Your task to perform on an android device: Open the stopwatch Image 0: 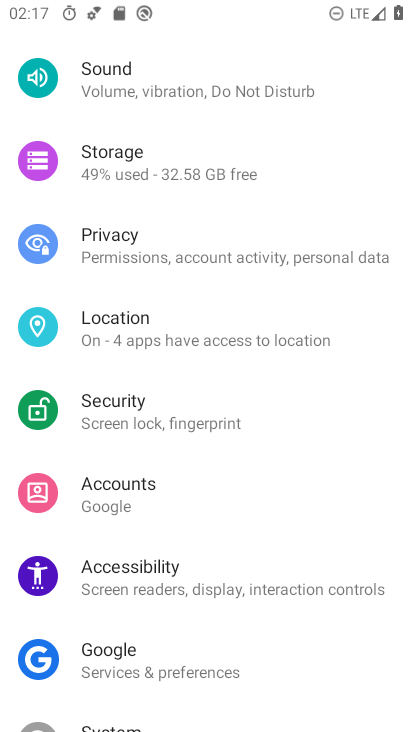
Step 0: press home button
Your task to perform on an android device: Open the stopwatch Image 1: 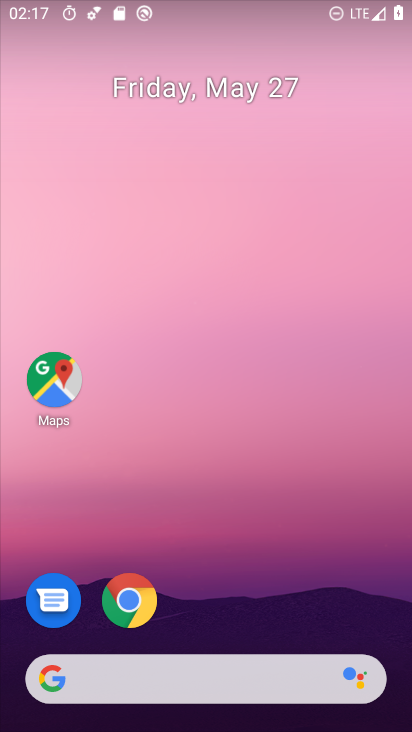
Step 1: click (239, 171)
Your task to perform on an android device: Open the stopwatch Image 2: 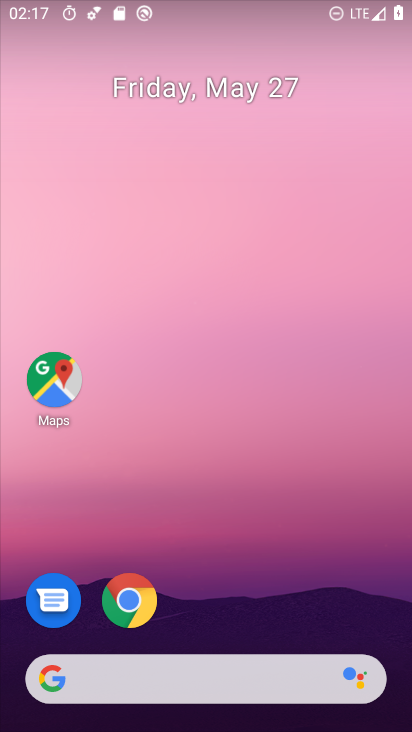
Step 2: drag from (184, 267) to (218, 34)
Your task to perform on an android device: Open the stopwatch Image 3: 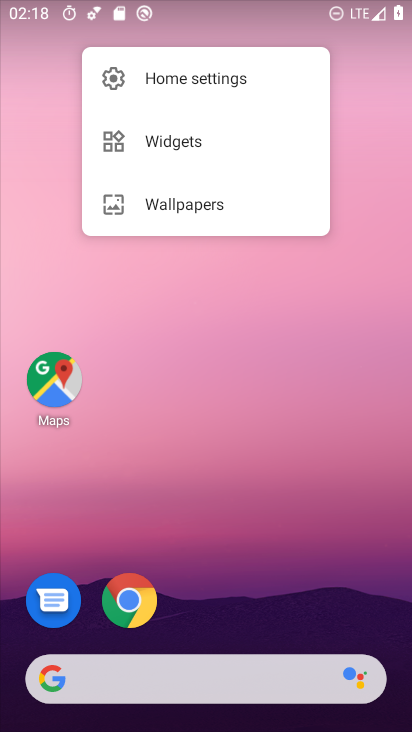
Step 3: click (245, 534)
Your task to perform on an android device: Open the stopwatch Image 4: 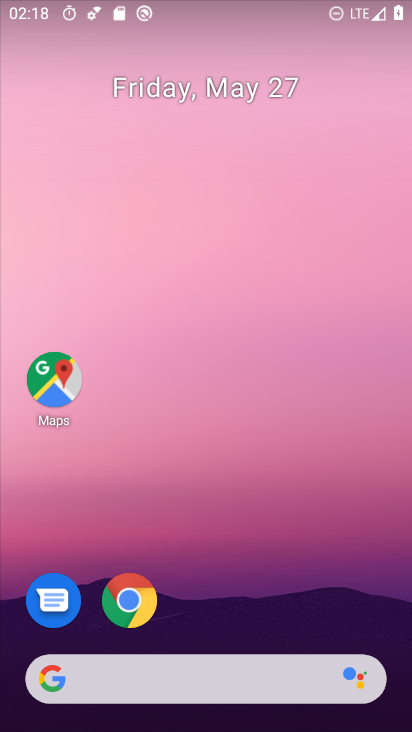
Step 4: drag from (247, 533) to (247, 13)
Your task to perform on an android device: Open the stopwatch Image 5: 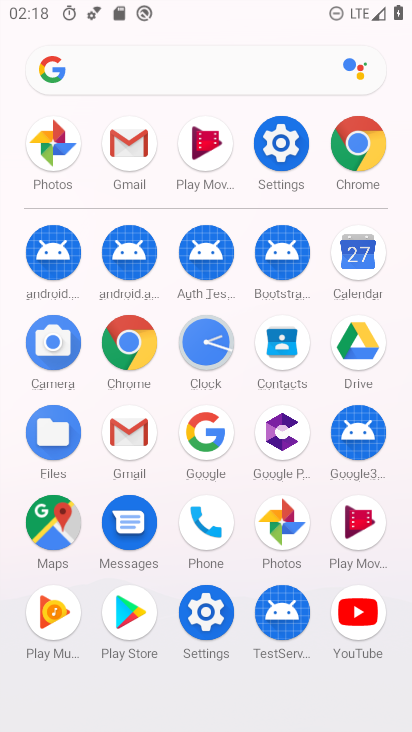
Step 5: click (206, 332)
Your task to perform on an android device: Open the stopwatch Image 6: 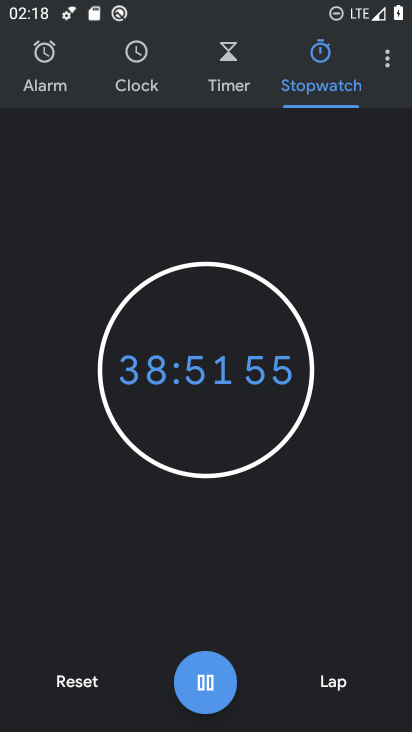
Step 6: task complete